Your task to perform on an android device: Open wifi settings Image 0: 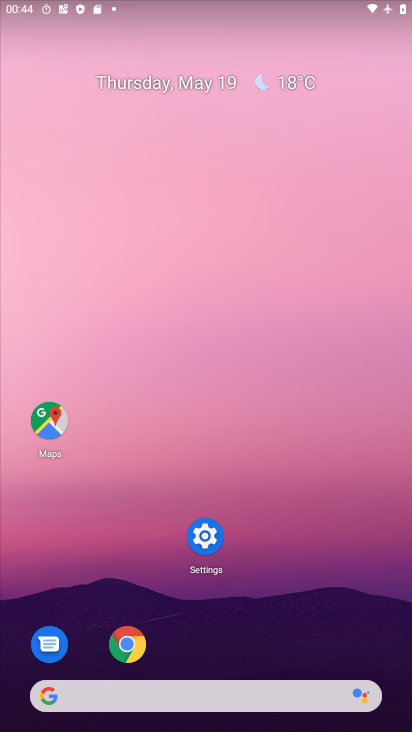
Step 0: drag from (311, 640) to (306, 154)
Your task to perform on an android device: Open wifi settings Image 1: 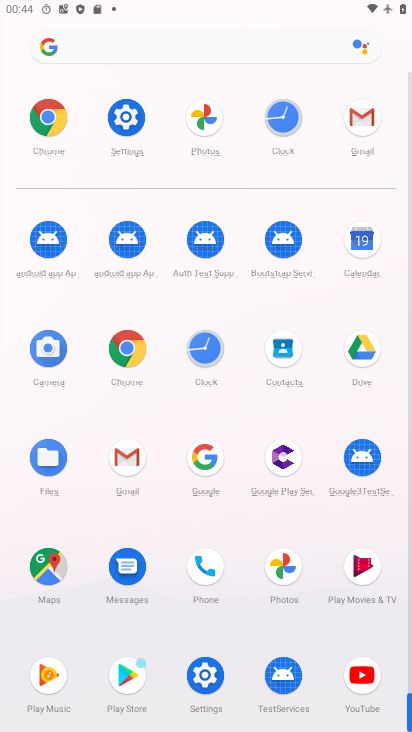
Step 1: click (125, 110)
Your task to perform on an android device: Open wifi settings Image 2: 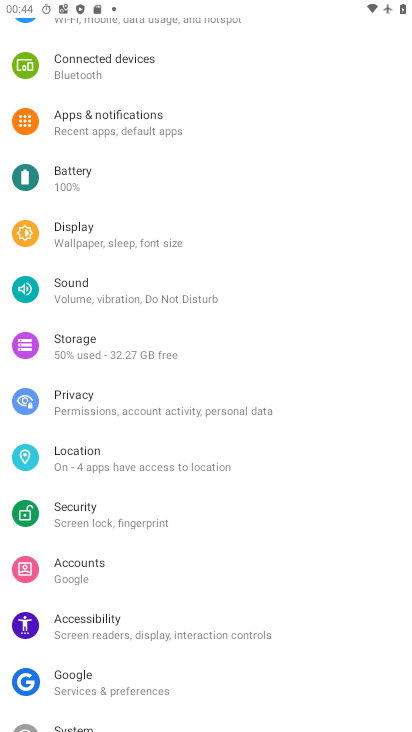
Step 2: drag from (138, 100) to (183, 541)
Your task to perform on an android device: Open wifi settings Image 3: 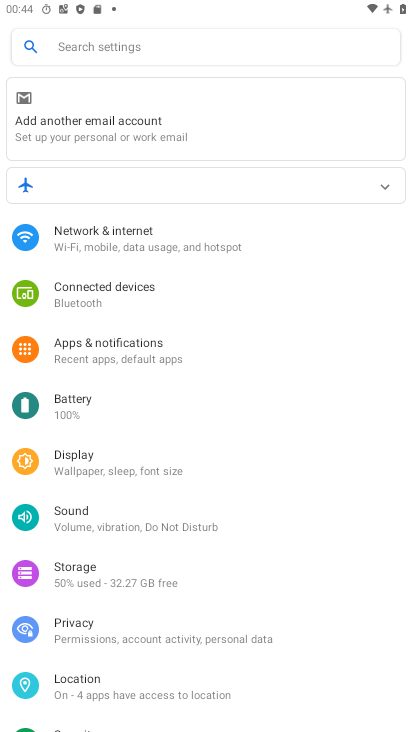
Step 3: click (142, 242)
Your task to perform on an android device: Open wifi settings Image 4: 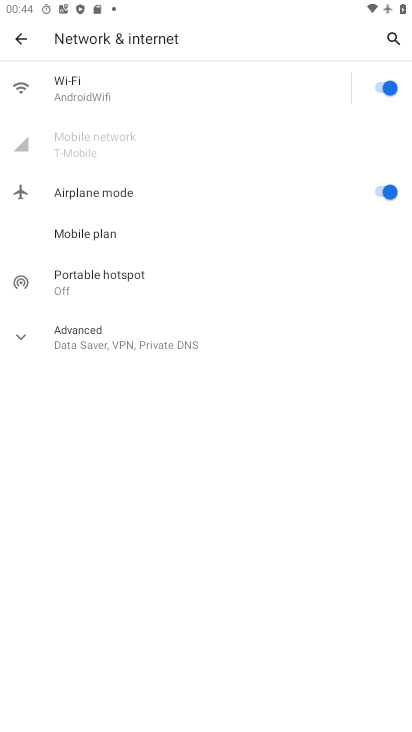
Step 4: click (170, 82)
Your task to perform on an android device: Open wifi settings Image 5: 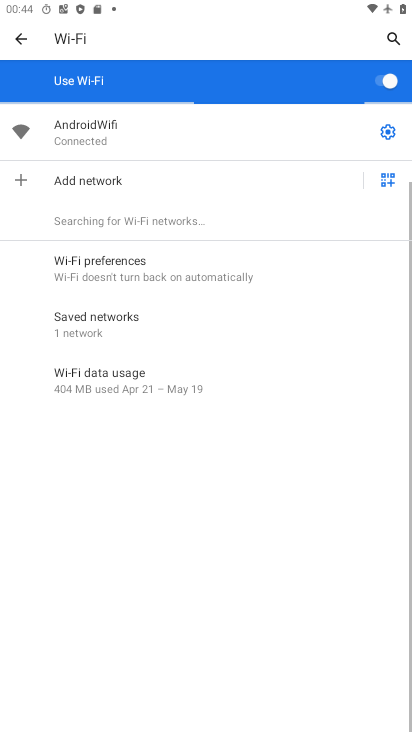
Step 5: click (393, 139)
Your task to perform on an android device: Open wifi settings Image 6: 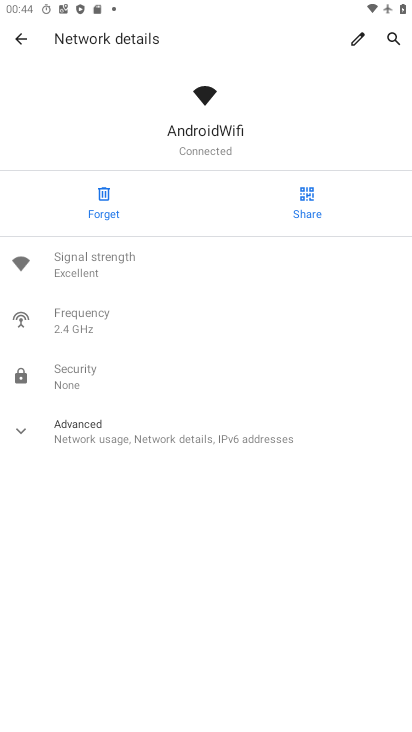
Step 6: task complete